Your task to perform on an android device: open app "WhatsApp Messenger" Image 0: 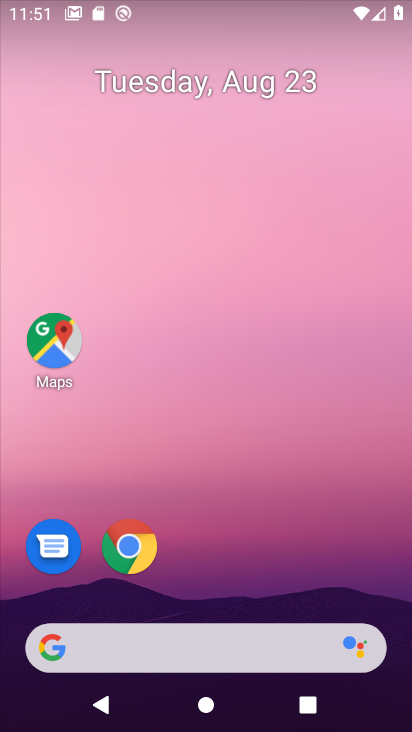
Step 0: drag from (179, 603) to (210, 171)
Your task to perform on an android device: open app "WhatsApp Messenger" Image 1: 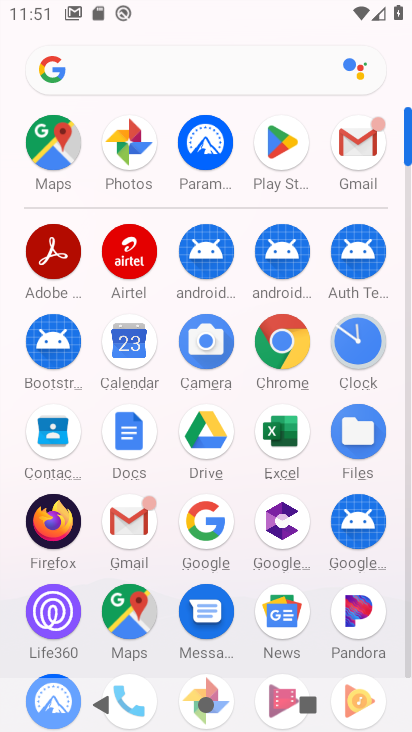
Step 1: click (285, 134)
Your task to perform on an android device: open app "WhatsApp Messenger" Image 2: 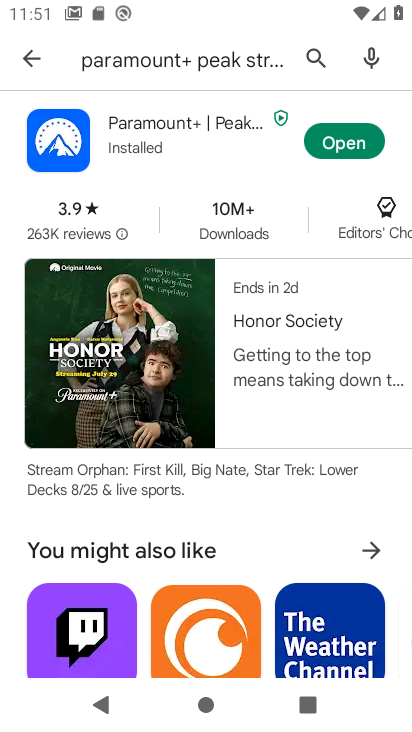
Step 2: click (36, 54)
Your task to perform on an android device: open app "WhatsApp Messenger" Image 3: 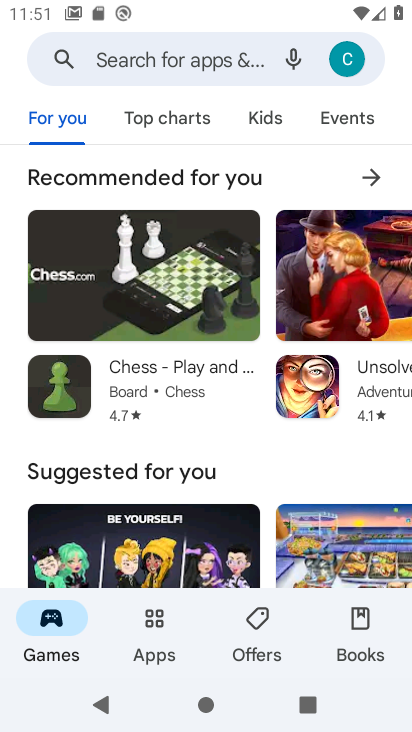
Step 3: click (169, 52)
Your task to perform on an android device: open app "WhatsApp Messenger" Image 4: 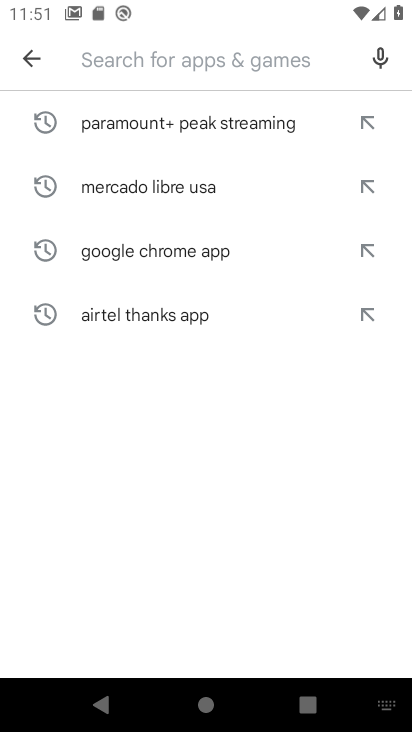
Step 4: type "WhatsApp Messenger "
Your task to perform on an android device: open app "WhatsApp Messenger" Image 5: 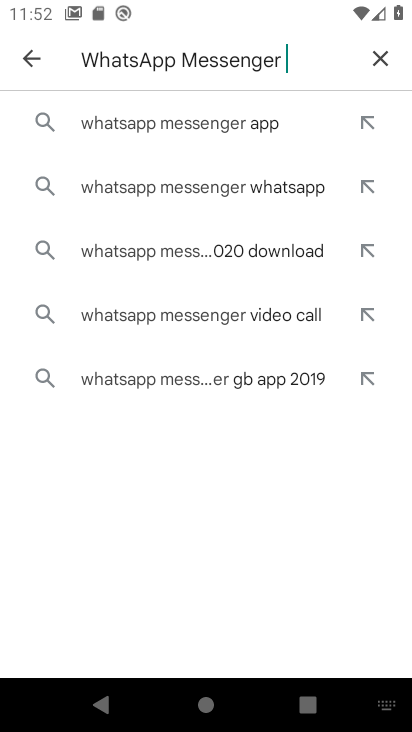
Step 5: click (220, 121)
Your task to perform on an android device: open app "WhatsApp Messenger" Image 6: 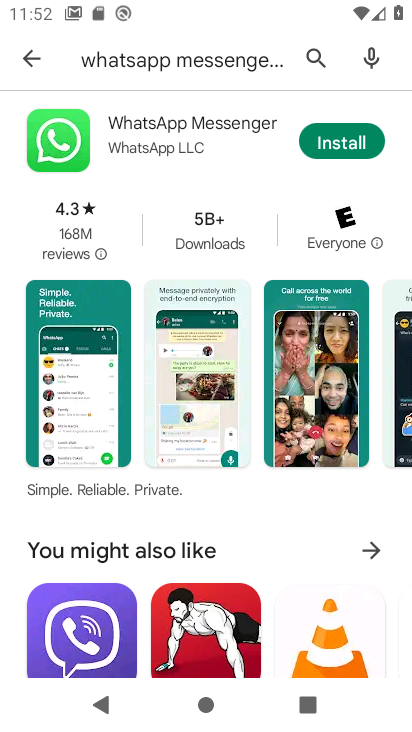
Step 6: click (330, 143)
Your task to perform on an android device: open app "WhatsApp Messenger" Image 7: 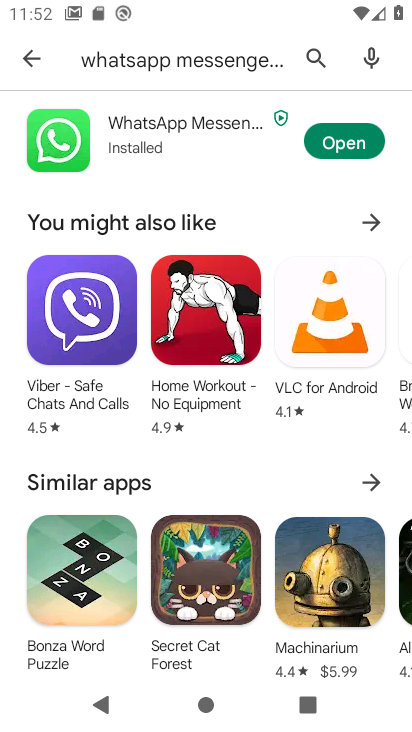
Step 7: task complete